Your task to perform on an android device: turn on wifi Image 0: 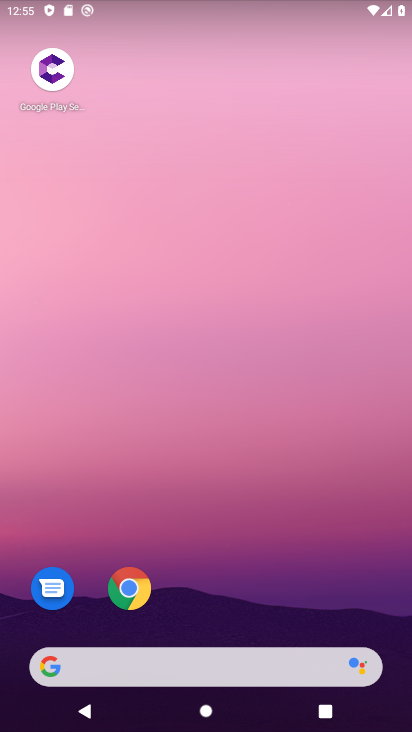
Step 0: drag from (146, 622) to (248, 78)
Your task to perform on an android device: turn on wifi Image 1: 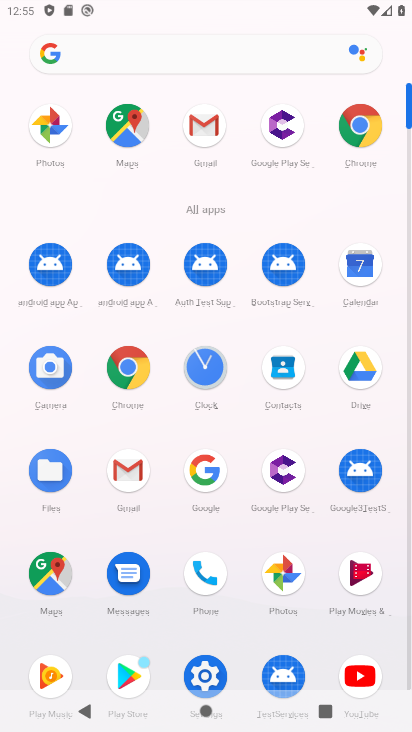
Step 1: click (210, 658)
Your task to perform on an android device: turn on wifi Image 2: 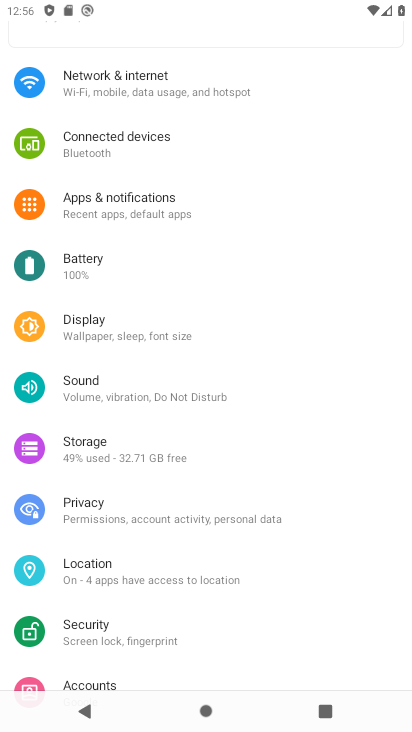
Step 2: click (149, 94)
Your task to perform on an android device: turn on wifi Image 3: 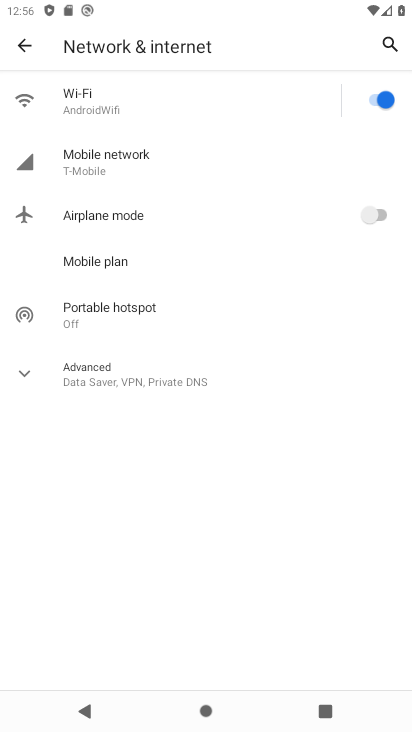
Step 3: task complete